Your task to perform on an android device: Open Yahoo.com Image 0: 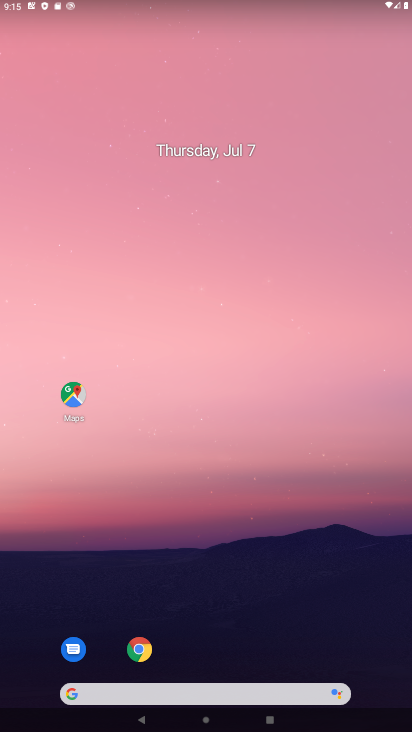
Step 0: click (138, 650)
Your task to perform on an android device: Open Yahoo.com Image 1: 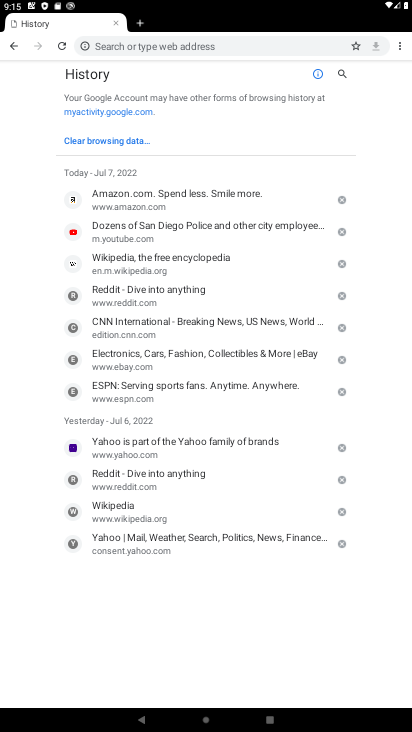
Step 1: click (403, 44)
Your task to perform on an android device: Open Yahoo.com Image 2: 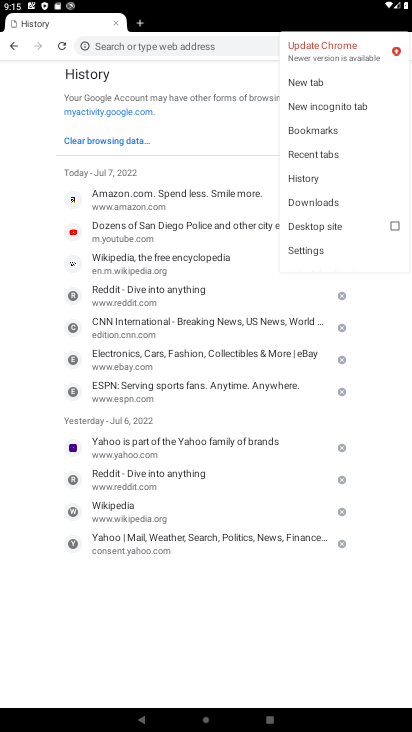
Step 2: click (301, 81)
Your task to perform on an android device: Open Yahoo.com Image 3: 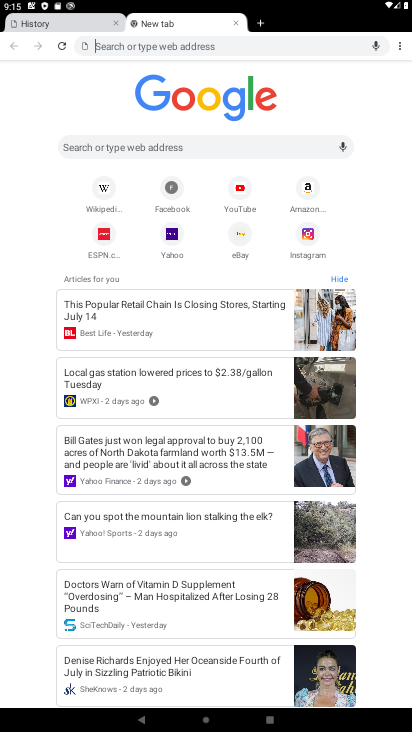
Step 3: click (171, 241)
Your task to perform on an android device: Open Yahoo.com Image 4: 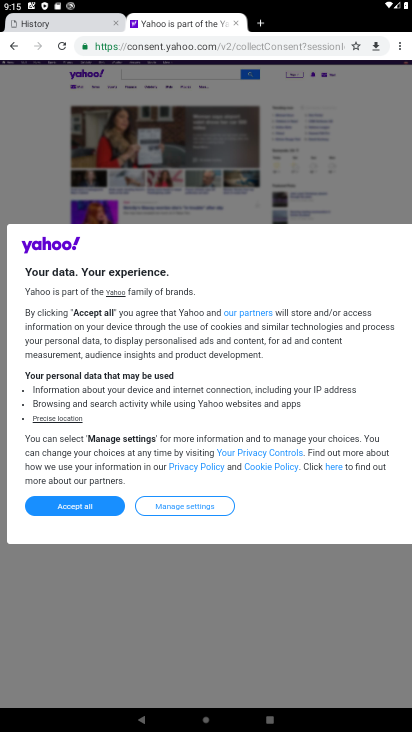
Step 4: click (65, 506)
Your task to perform on an android device: Open Yahoo.com Image 5: 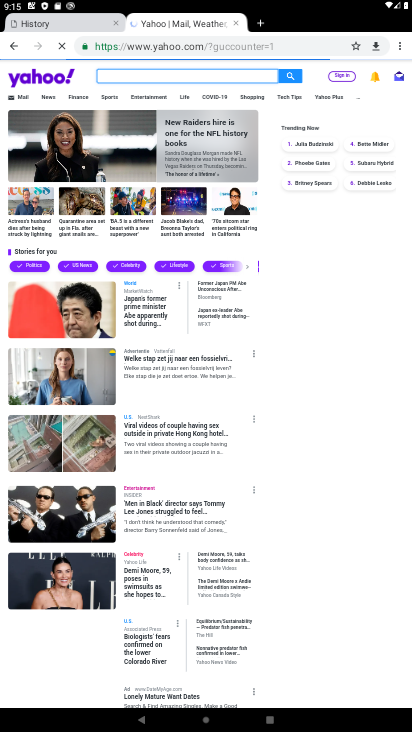
Step 5: task complete